Your task to perform on an android device: Find coffee shops on Maps Image 0: 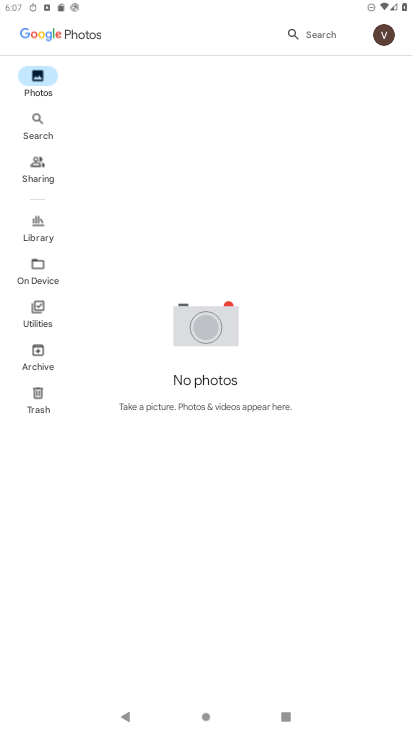
Step 0: press home button
Your task to perform on an android device: Find coffee shops on Maps Image 1: 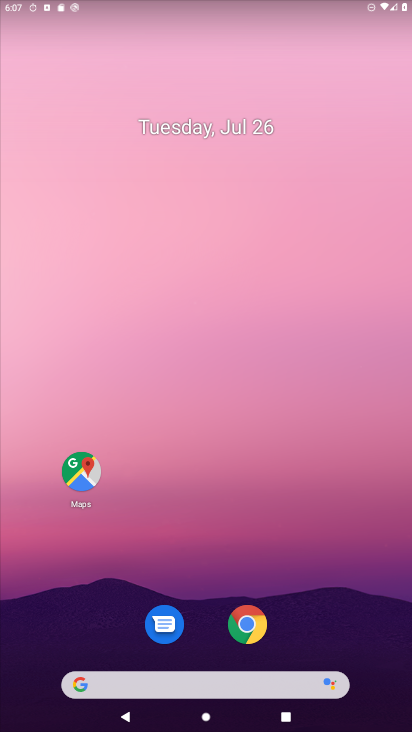
Step 1: drag from (283, 476) to (287, 50)
Your task to perform on an android device: Find coffee shops on Maps Image 2: 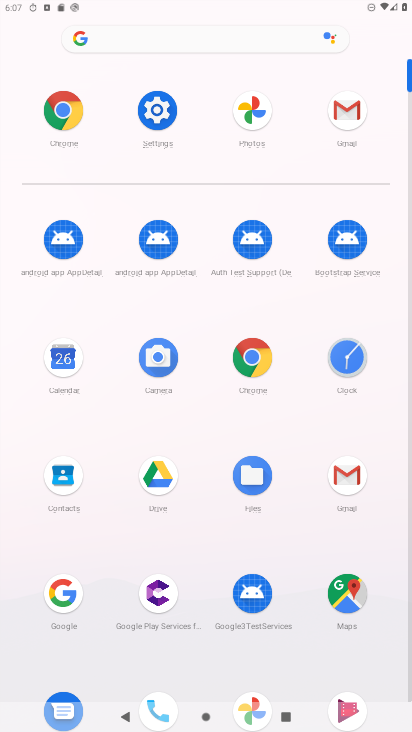
Step 2: click (353, 606)
Your task to perform on an android device: Find coffee shops on Maps Image 3: 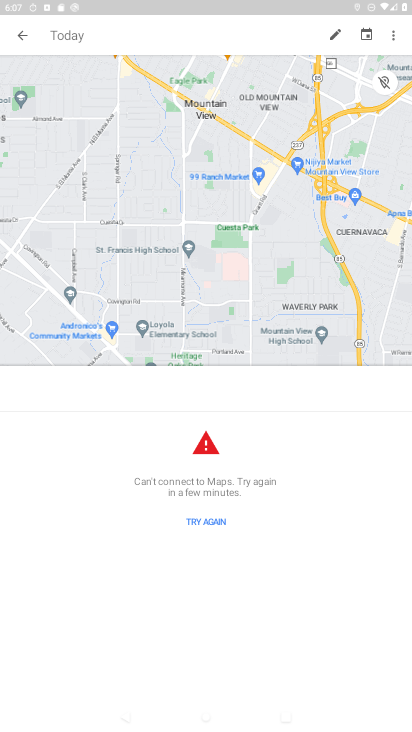
Step 3: press back button
Your task to perform on an android device: Find coffee shops on Maps Image 4: 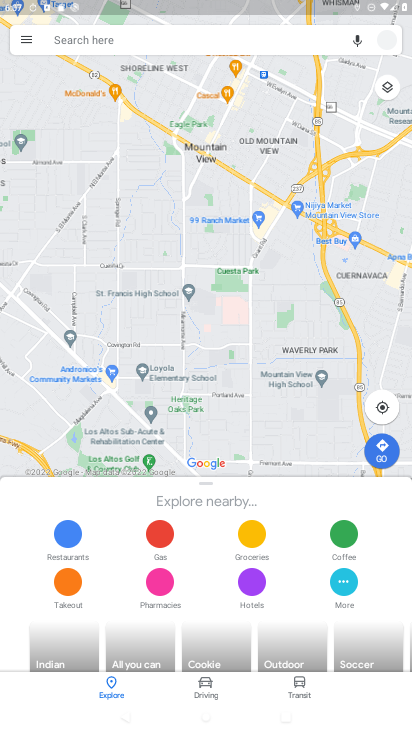
Step 4: click (143, 44)
Your task to perform on an android device: Find coffee shops on Maps Image 5: 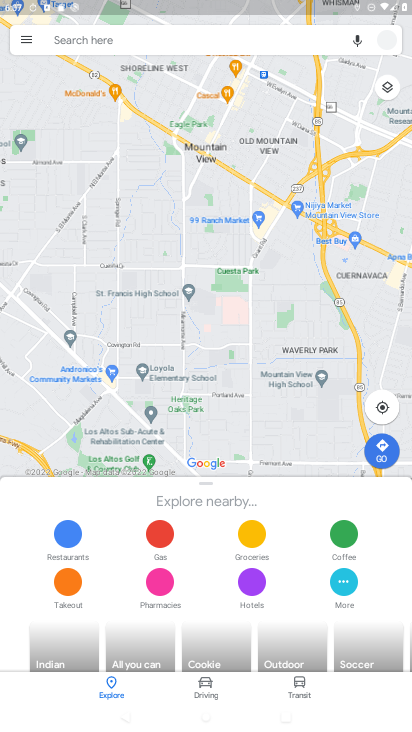
Step 5: click (143, 44)
Your task to perform on an android device: Find coffee shops on Maps Image 6: 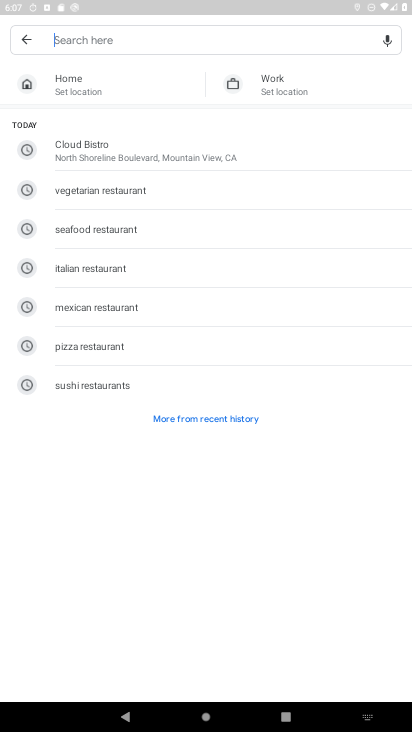
Step 6: type "coffee shops"
Your task to perform on an android device: Find coffee shops on Maps Image 7: 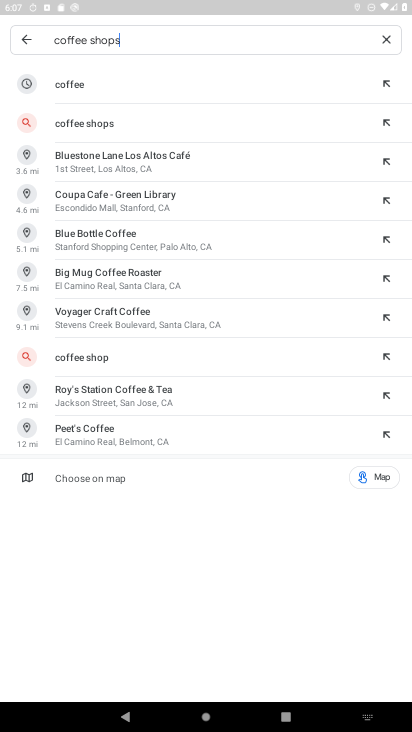
Step 7: click (107, 121)
Your task to perform on an android device: Find coffee shops on Maps Image 8: 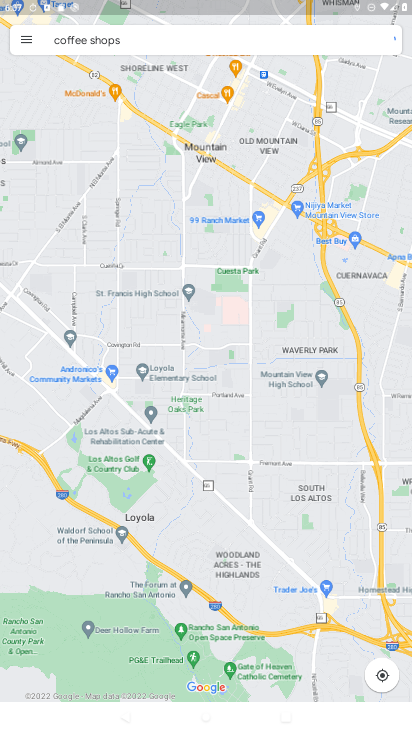
Step 8: task complete